Your task to perform on an android device: read, delete, or share a saved page in the chrome app Image 0: 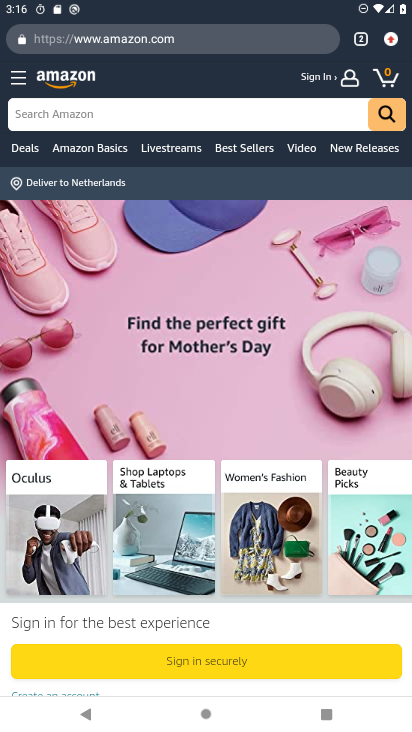
Step 0: drag from (394, 40) to (271, 304)
Your task to perform on an android device: read, delete, or share a saved page in the chrome app Image 1: 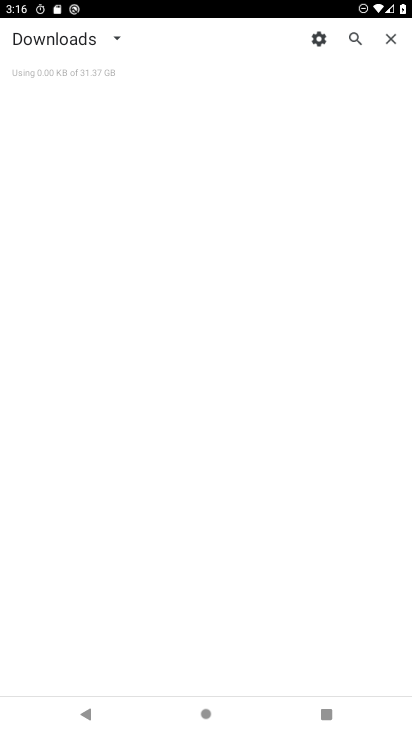
Step 1: click (103, 43)
Your task to perform on an android device: read, delete, or share a saved page in the chrome app Image 2: 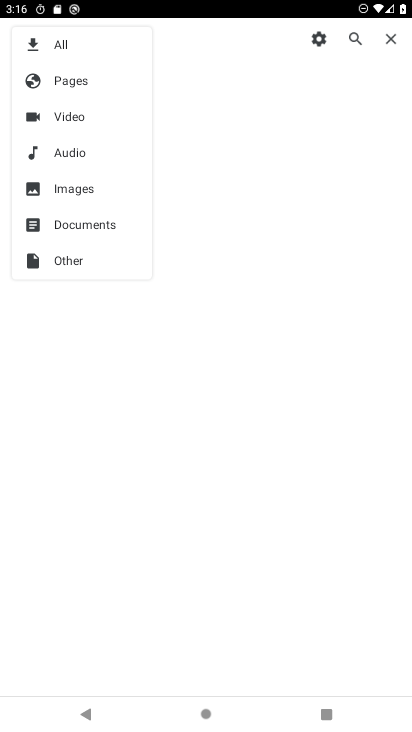
Step 2: click (99, 80)
Your task to perform on an android device: read, delete, or share a saved page in the chrome app Image 3: 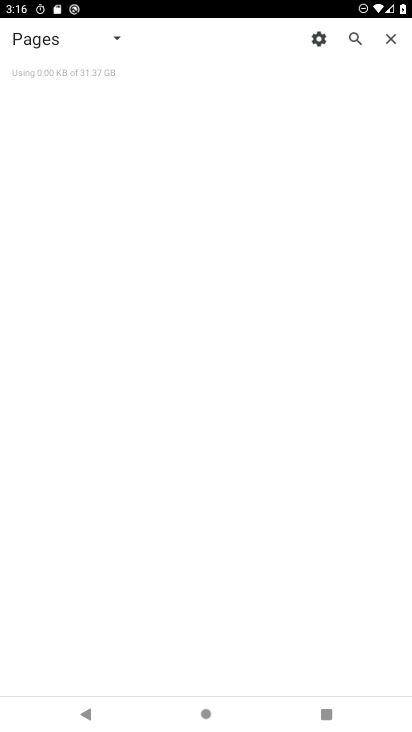
Step 3: task complete